Your task to perform on an android device: Go to sound settings Image 0: 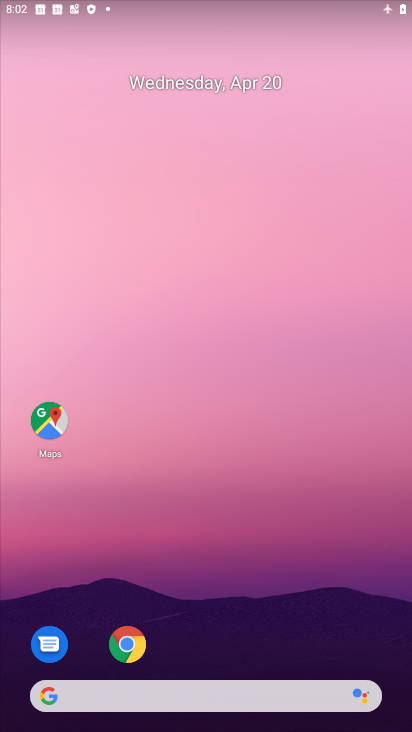
Step 0: drag from (342, 622) to (170, 128)
Your task to perform on an android device: Go to sound settings Image 1: 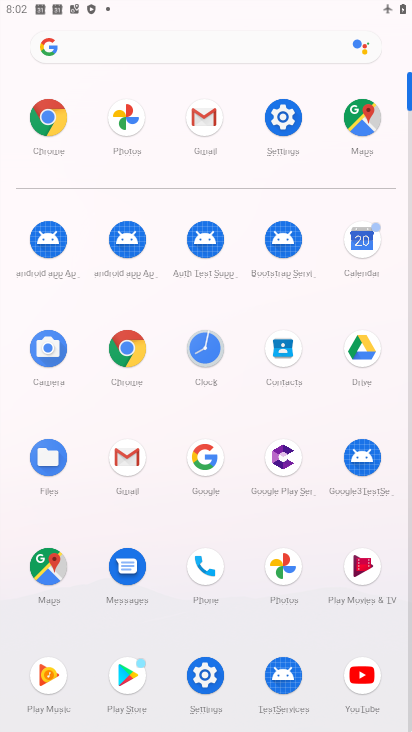
Step 1: click (290, 125)
Your task to perform on an android device: Go to sound settings Image 2: 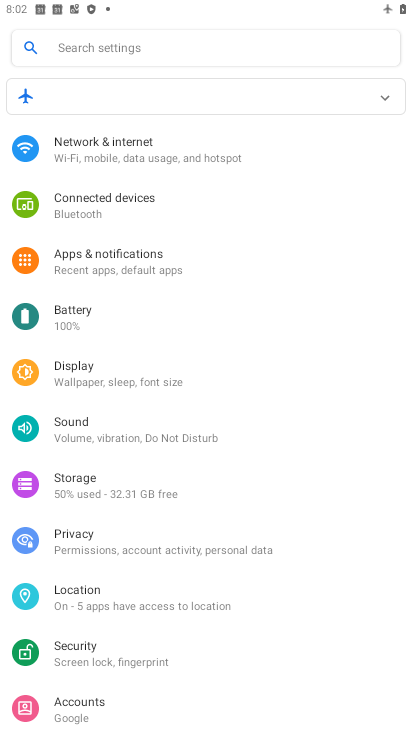
Step 2: click (137, 424)
Your task to perform on an android device: Go to sound settings Image 3: 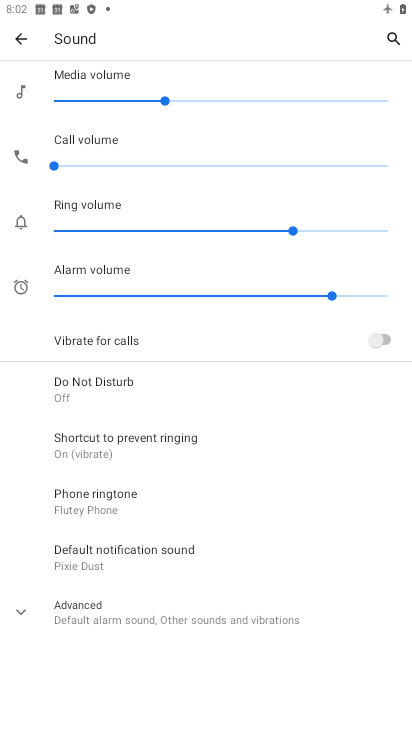
Step 3: task complete